Your task to perform on an android device: Go to Reddit.com Image 0: 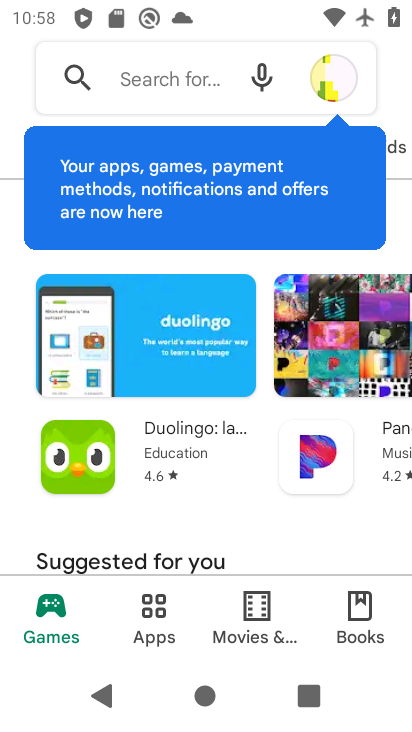
Step 0: press back button
Your task to perform on an android device: Go to Reddit.com Image 1: 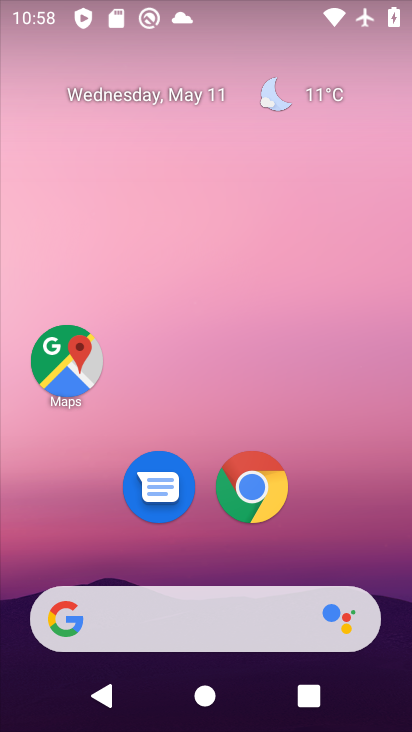
Step 1: drag from (324, 530) to (268, 69)
Your task to perform on an android device: Go to Reddit.com Image 2: 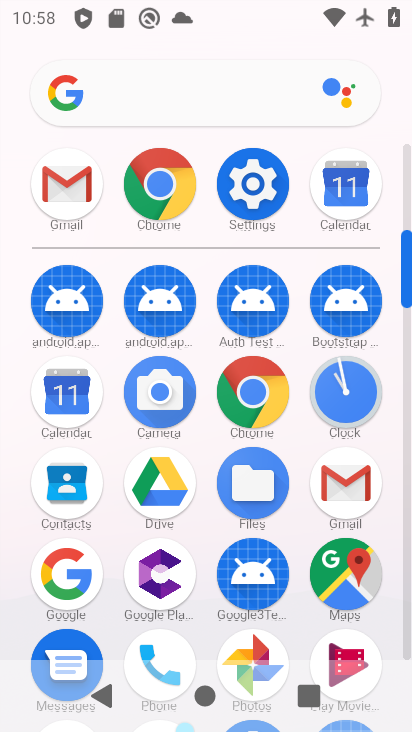
Step 2: click (158, 183)
Your task to perform on an android device: Go to Reddit.com Image 3: 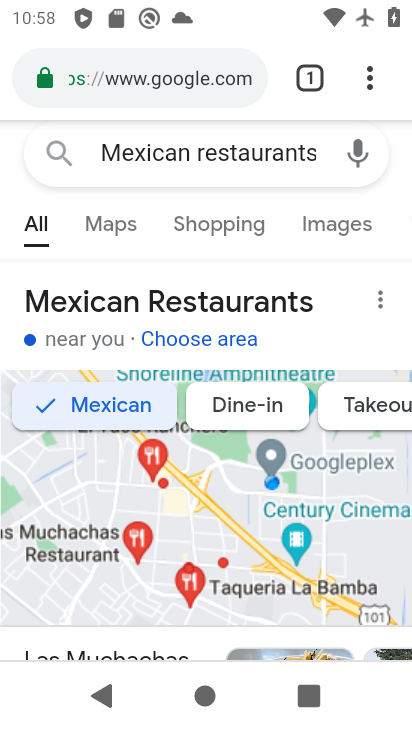
Step 3: click (164, 80)
Your task to perform on an android device: Go to Reddit.com Image 4: 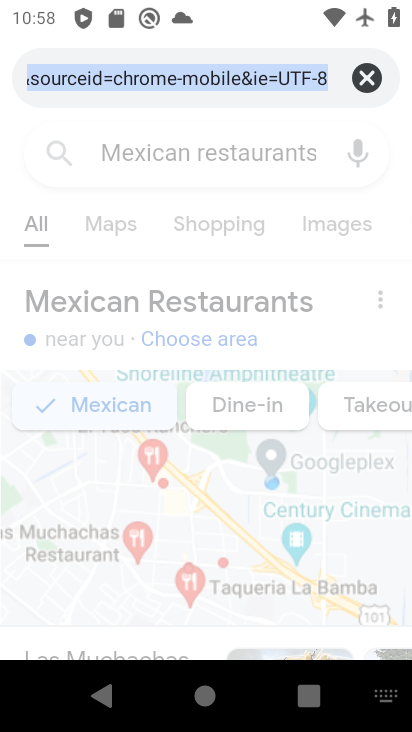
Step 4: click (362, 75)
Your task to perform on an android device: Go to Reddit.com Image 5: 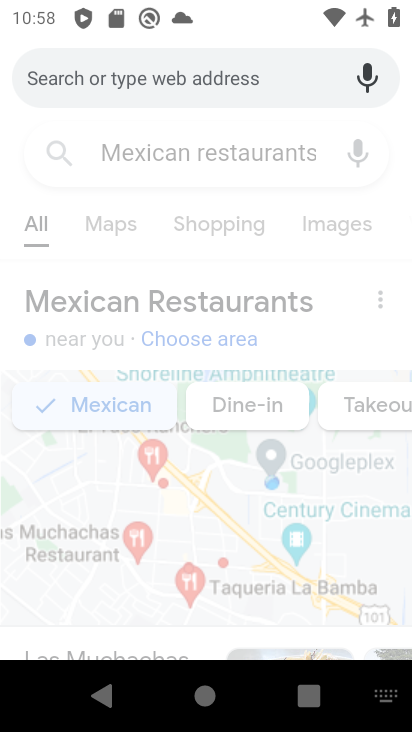
Step 5: type "Reddit.com"
Your task to perform on an android device: Go to Reddit.com Image 6: 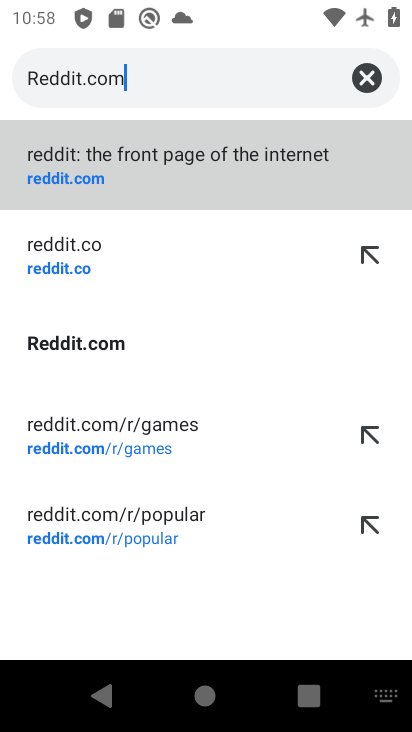
Step 6: type ""
Your task to perform on an android device: Go to Reddit.com Image 7: 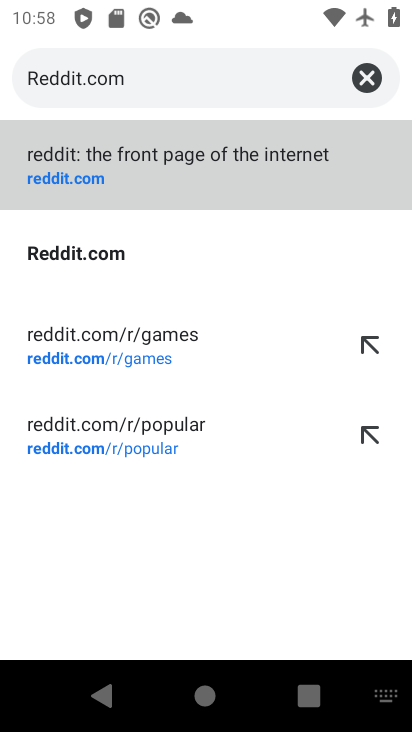
Step 7: click (181, 177)
Your task to perform on an android device: Go to Reddit.com Image 8: 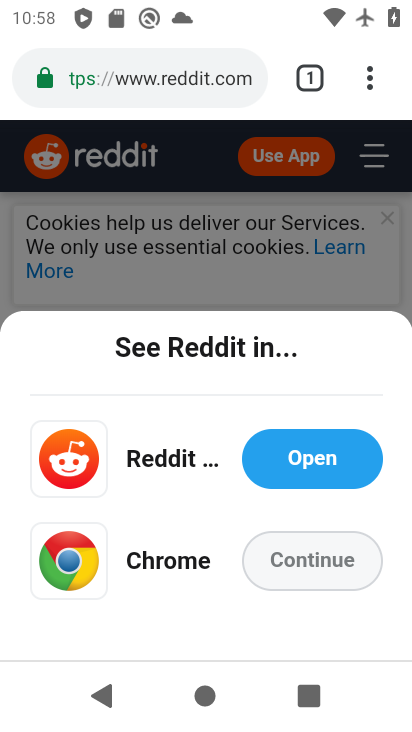
Step 8: task complete